Your task to perform on an android device: find which apps use the phone's location Image 0: 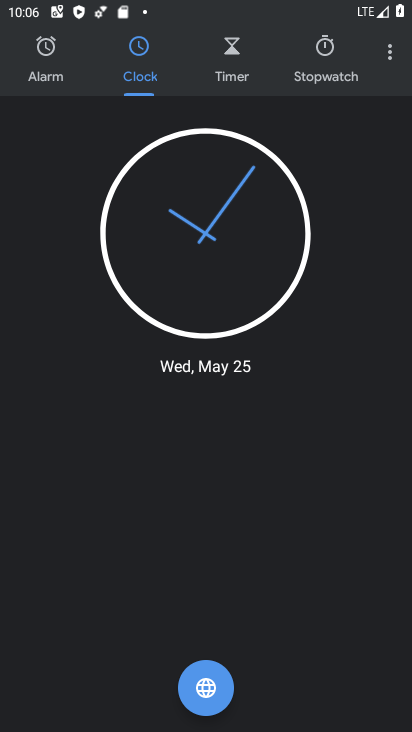
Step 0: press home button
Your task to perform on an android device: find which apps use the phone's location Image 1: 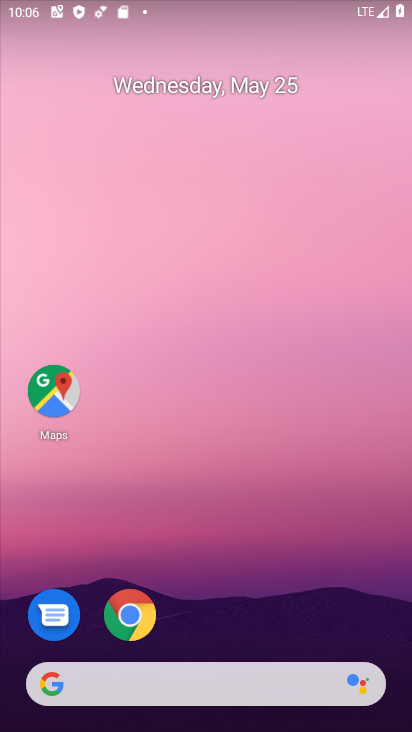
Step 1: drag from (231, 513) to (239, 32)
Your task to perform on an android device: find which apps use the phone's location Image 2: 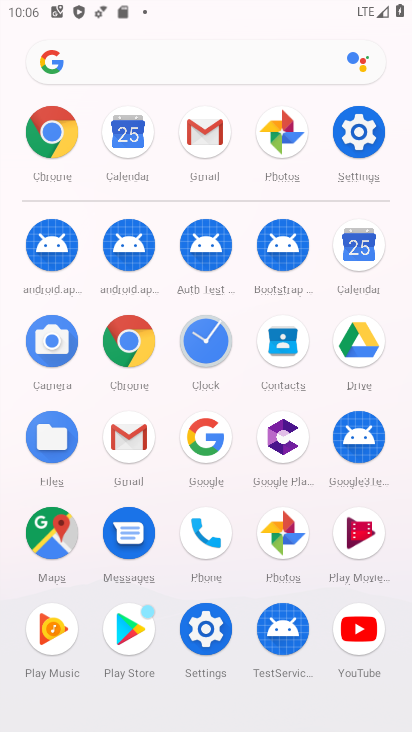
Step 2: click (340, 124)
Your task to perform on an android device: find which apps use the phone's location Image 3: 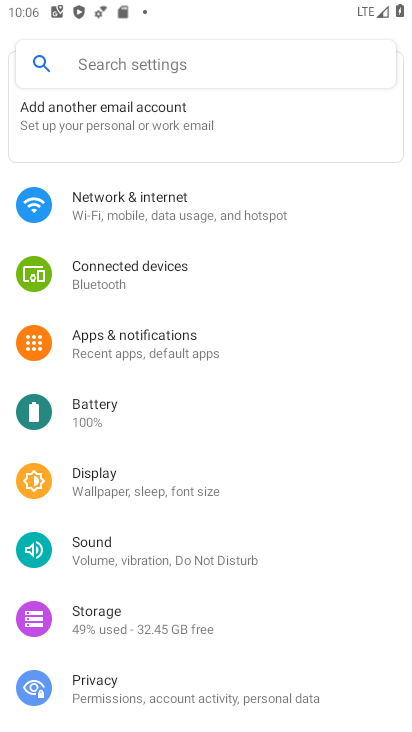
Step 3: drag from (209, 544) to (182, 324)
Your task to perform on an android device: find which apps use the phone's location Image 4: 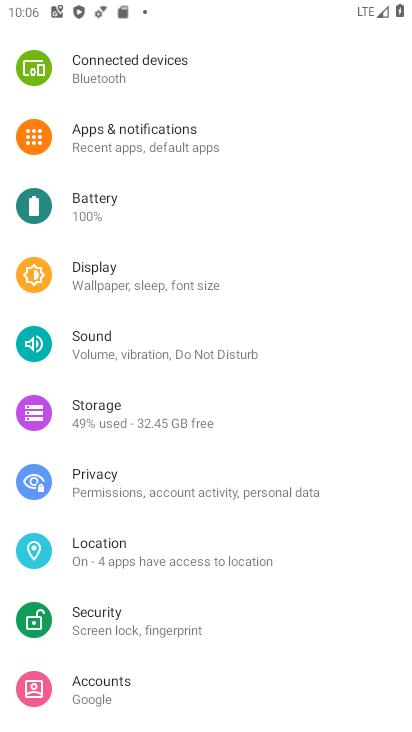
Step 4: click (202, 550)
Your task to perform on an android device: find which apps use the phone's location Image 5: 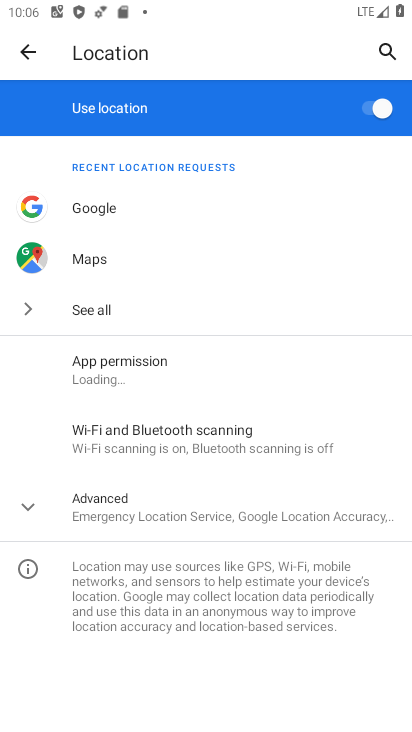
Step 5: click (178, 368)
Your task to perform on an android device: find which apps use the phone's location Image 6: 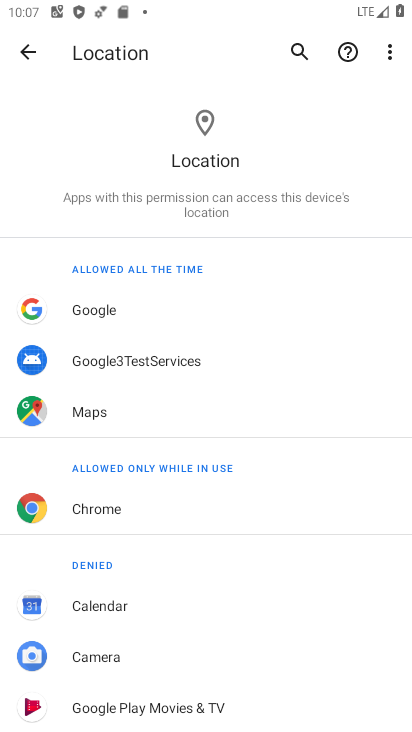
Step 6: task complete